Your task to perform on an android device: set the timer Image 0: 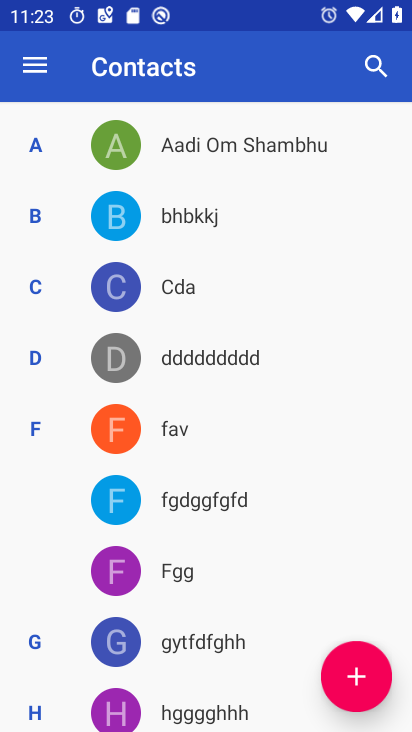
Step 0: press home button
Your task to perform on an android device: set the timer Image 1: 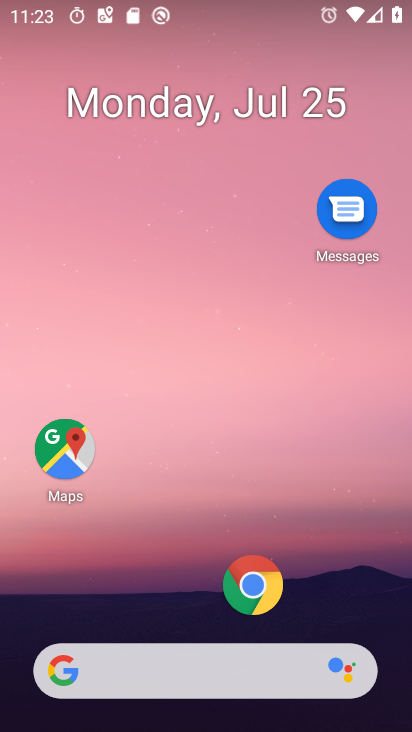
Step 1: drag from (225, 677) to (280, 102)
Your task to perform on an android device: set the timer Image 2: 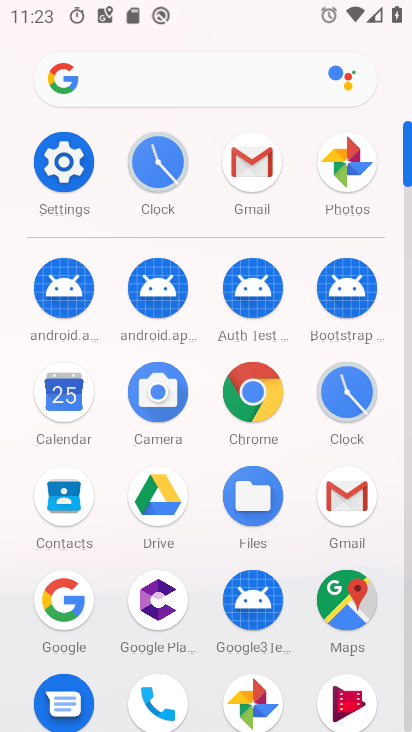
Step 2: click (358, 411)
Your task to perform on an android device: set the timer Image 3: 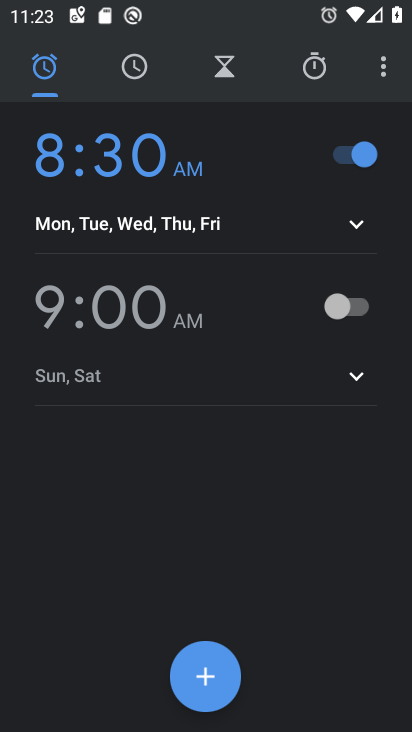
Step 3: click (218, 68)
Your task to perform on an android device: set the timer Image 4: 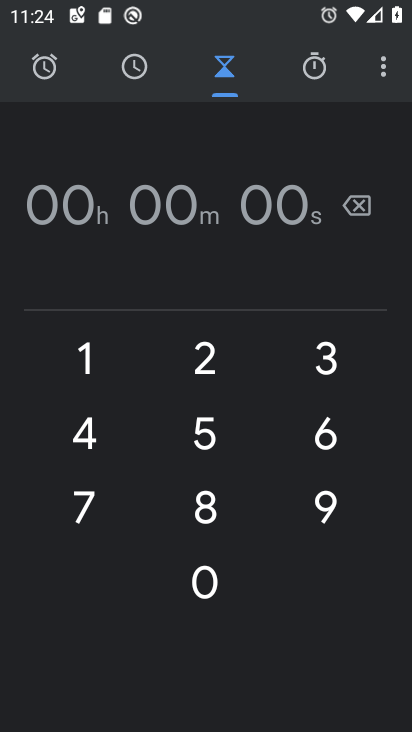
Step 4: click (189, 508)
Your task to perform on an android device: set the timer Image 5: 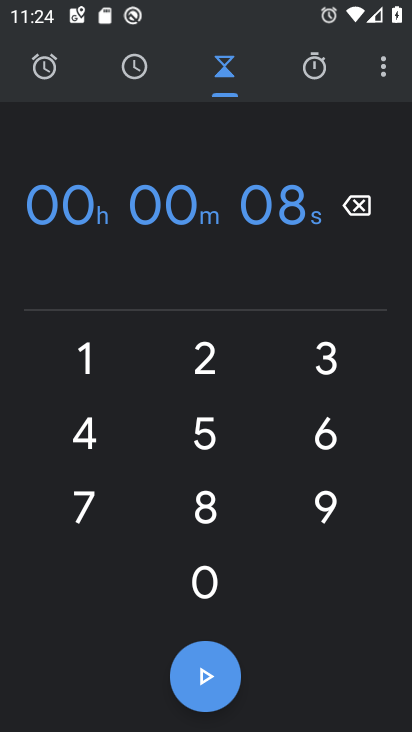
Step 5: click (211, 359)
Your task to perform on an android device: set the timer Image 6: 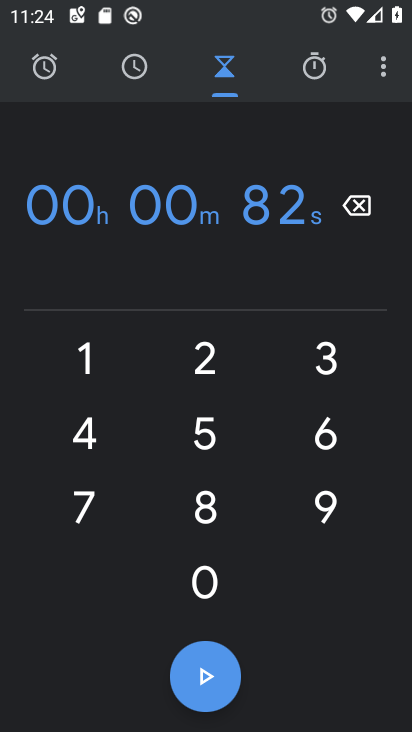
Step 6: click (208, 685)
Your task to perform on an android device: set the timer Image 7: 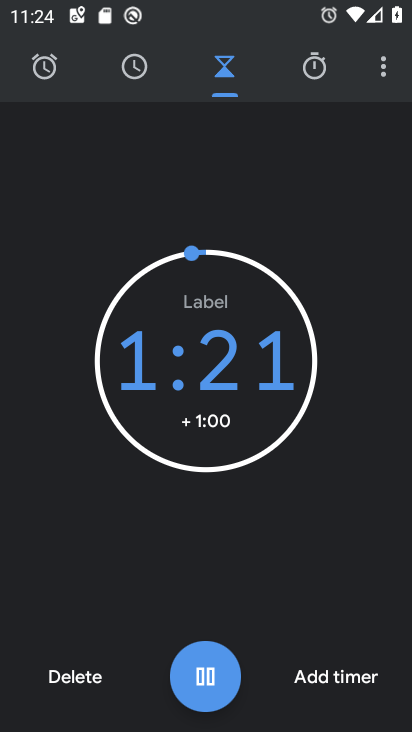
Step 7: click (203, 684)
Your task to perform on an android device: set the timer Image 8: 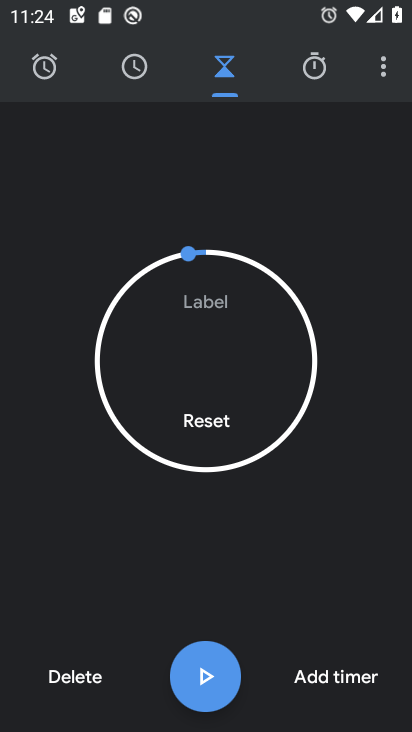
Step 8: task complete